Your task to perform on an android device: Open the calendar app, open the side menu, and click the "Day" option Image 0: 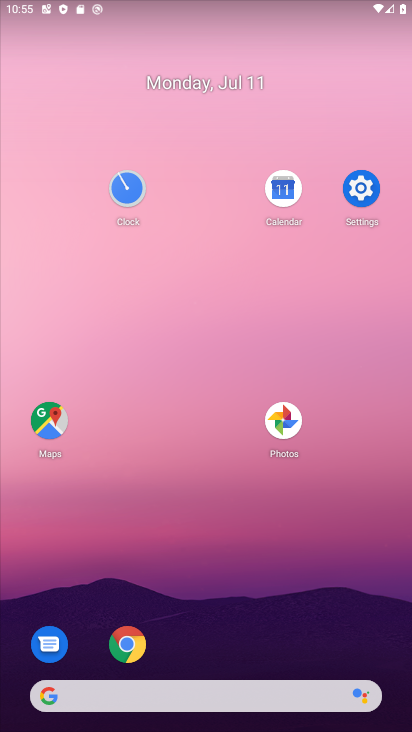
Step 0: click (286, 183)
Your task to perform on an android device: Open the calendar app, open the side menu, and click the "Day" option Image 1: 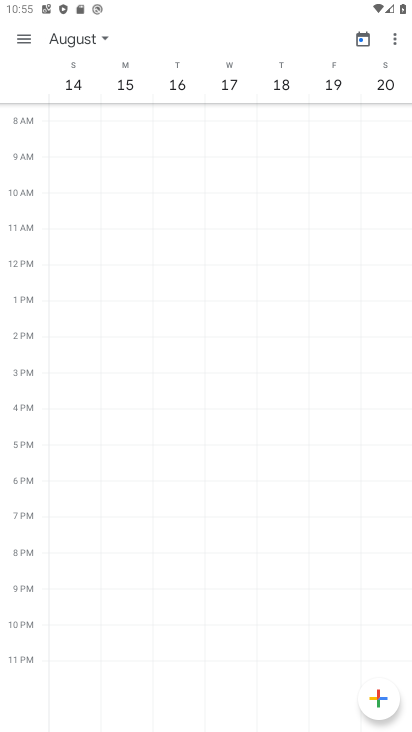
Step 1: click (23, 43)
Your task to perform on an android device: Open the calendar app, open the side menu, and click the "Day" option Image 2: 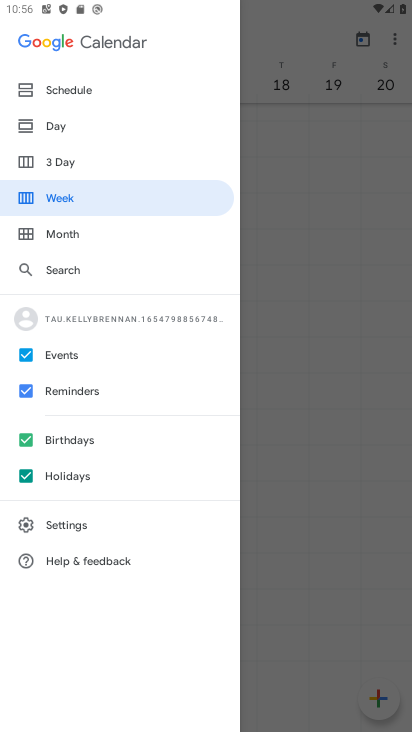
Step 2: click (94, 129)
Your task to perform on an android device: Open the calendar app, open the side menu, and click the "Day" option Image 3: 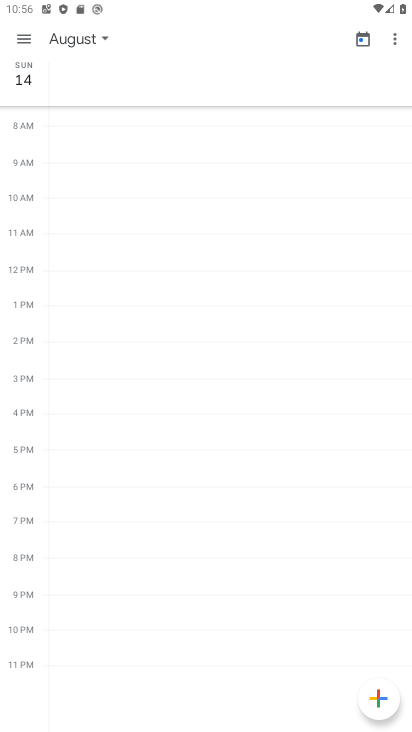
Step 3: task complete